Your task to perform on an android device: What's the weather today? Image 0: 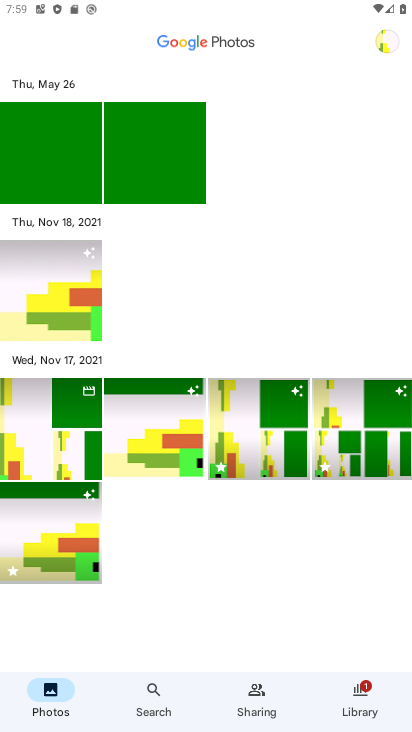
Step 0: press home button
Your task to perform on an android device: What's the weather today? Image 1: 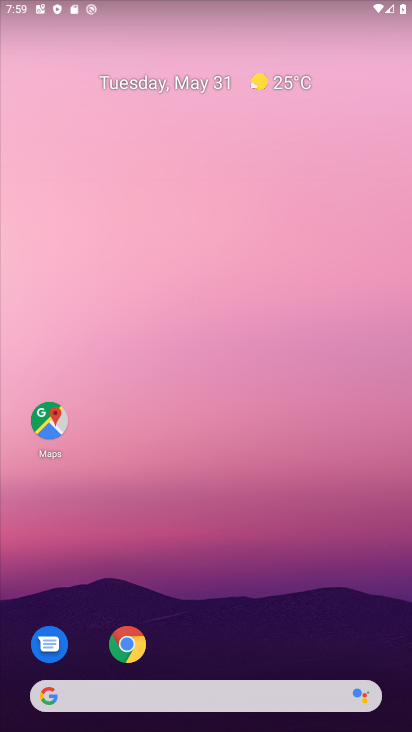
Step 1: drag from (264, 709) to (131, 46)
Your task to perform on an android device: What's the weather today? Image 2: 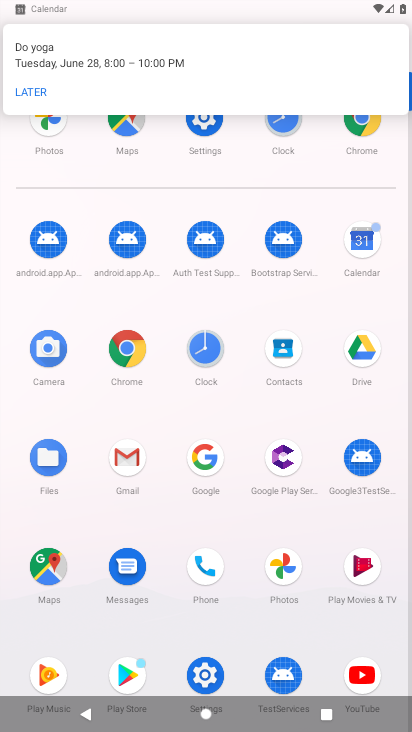
Step 2: click (30, 90)
Your task to perform on an android device: What's the weather today? Image 3: 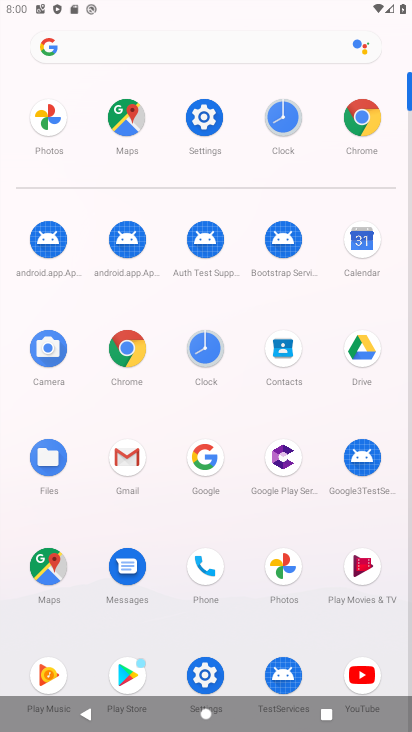
Step 3: click (154, 46)
Your task to perform on an android device: What's the weather today? Image 4: 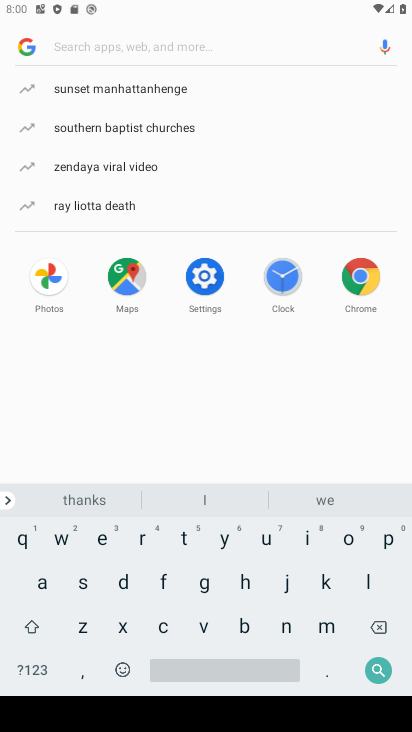
Step 4: click (60, 534)
Your task to perform on an android device: What's the weather today? Image 5: 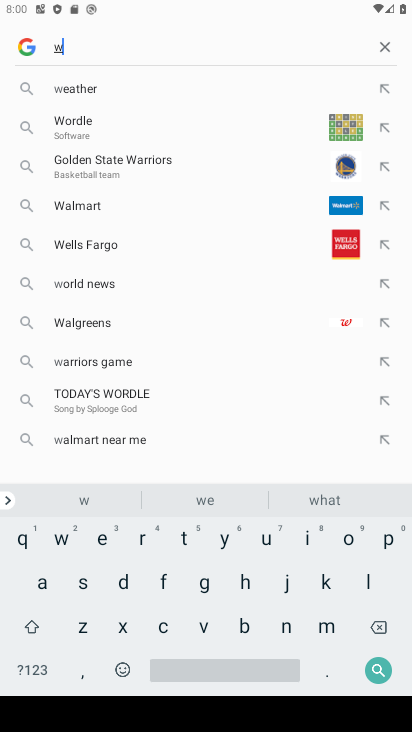
Step 5: click (125, 83)
Your task to perform on an android device: What's the weather today? Image 6: 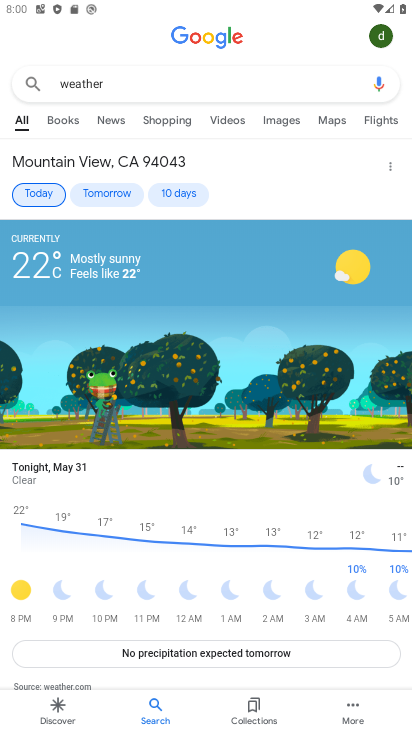
Step 6: task complete